Your task to perform on an android device: Open Chrome and go to settings Image 0: 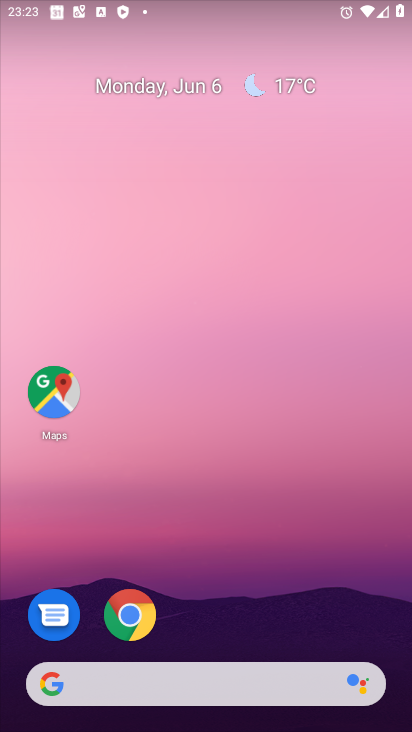
Step 0: click (133, 612)
Your task to perform on an android device: Open Chrome and go to settings Image 1: 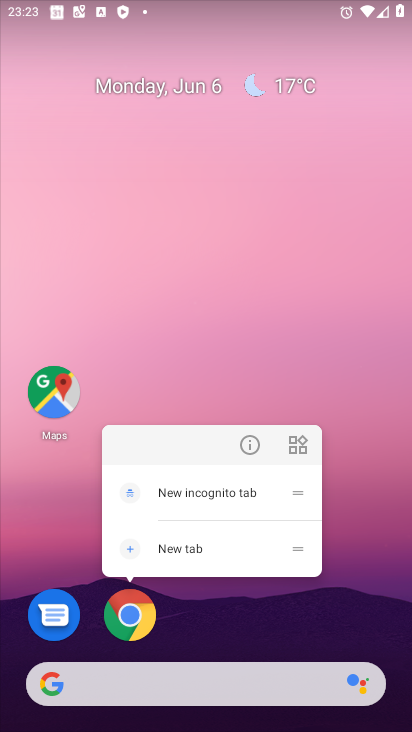
Step 1: click (134, 607)
Your task to perform on an android device: Open Chrome and go to settings Image 2: 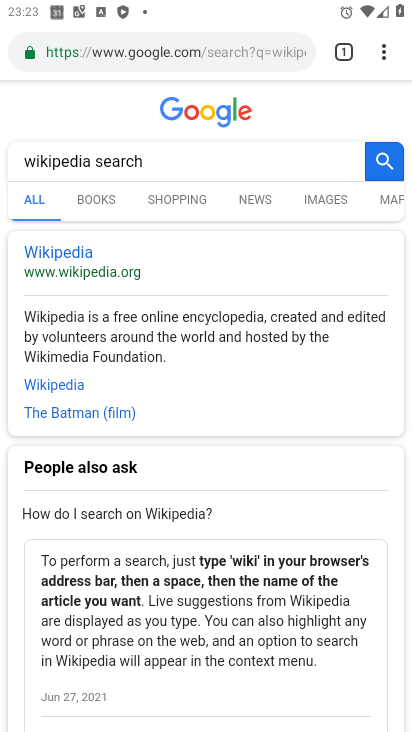
Step 2: click (385, 51)
Your task to perform on an android device: Open Chrome and go to settings Image 3: 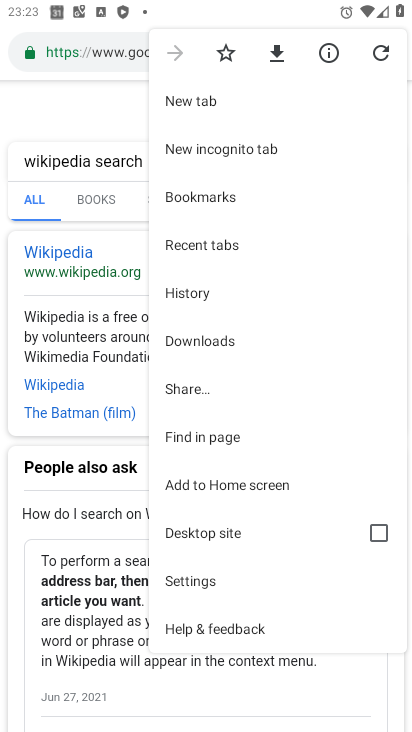
Step 3: click (191, 580)
Your task to perform on an android device: Open Chrome and go to settings Image 4: 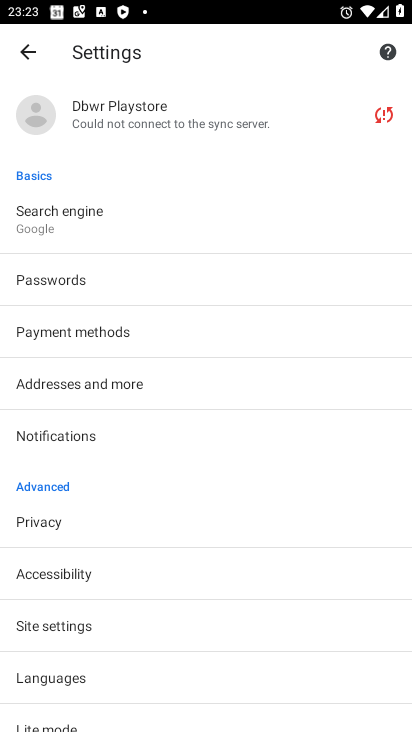
Step 4: task complete